Your task to perform on an android device: Go to Google Image 0: 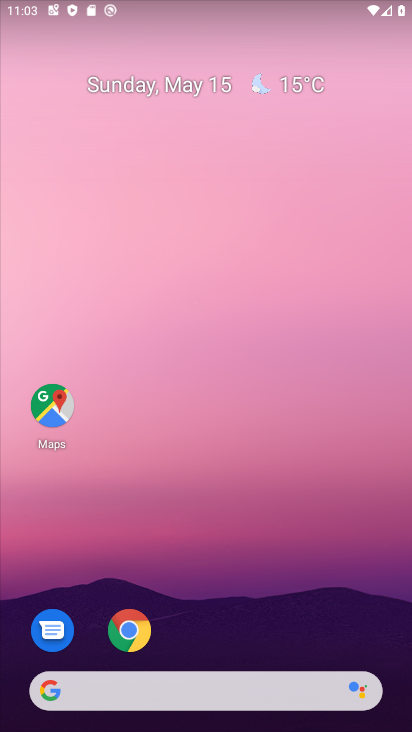
Step 0: drag from (223, 726) to (208, 162)
Your task to perform on an android device: Go to Google Image 1: 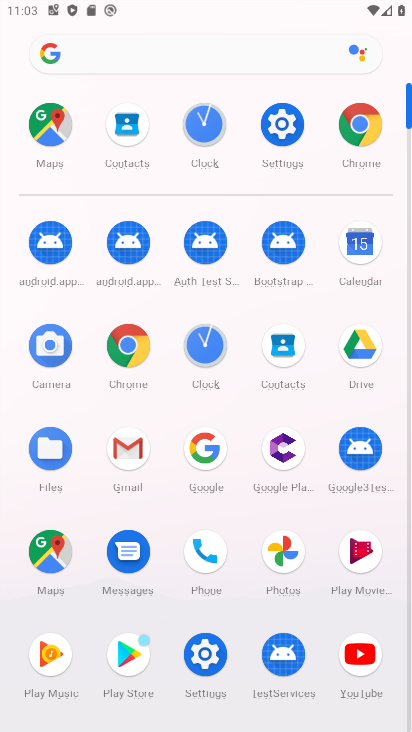
Step 1: click (200, 448)
Your task to perform on an android device: Go to Google Image 2: 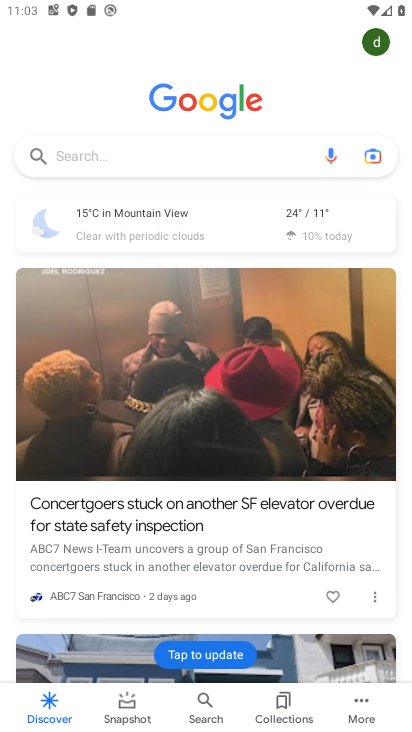
Step 2: task complete